Your task to perform on an android device: turn on the 12-hour format for clock Image 0: 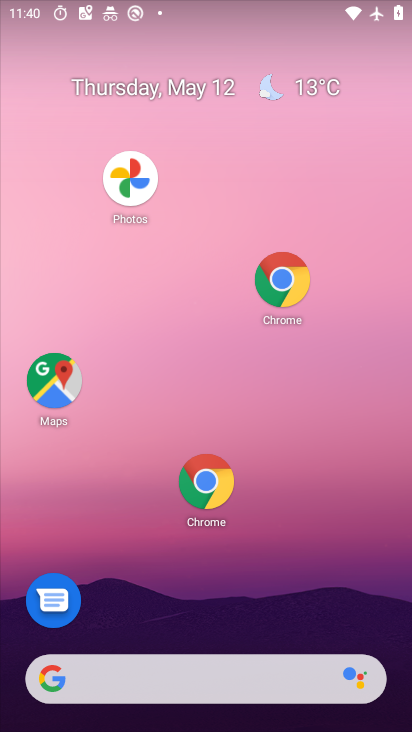
Step 0: drag from (267, 471) to (123, 82)
Your task to perform on an android device: turn on the 12-hour format for clock Image 1: 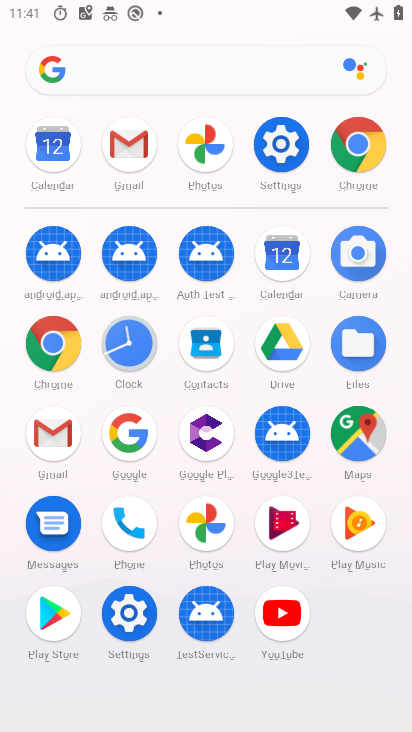
Step 1: click (129, 339)
Your task to perform on an android device: turn on the 12-hour format for clock Image 2: 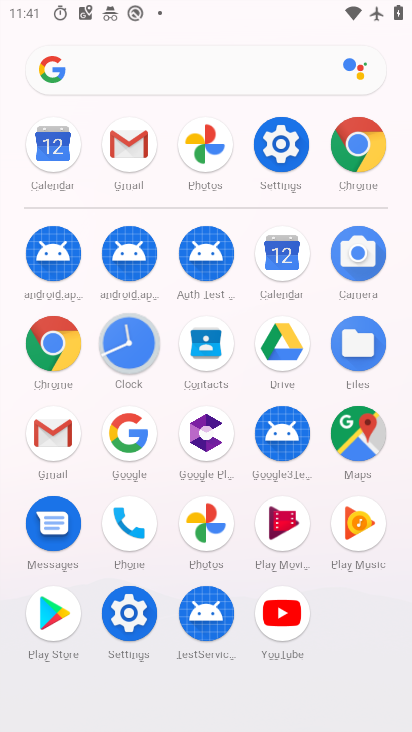
Step 2: click (127, 339)
Your task to perform on an android device: turn on the 12-hour format for clock Image 3: 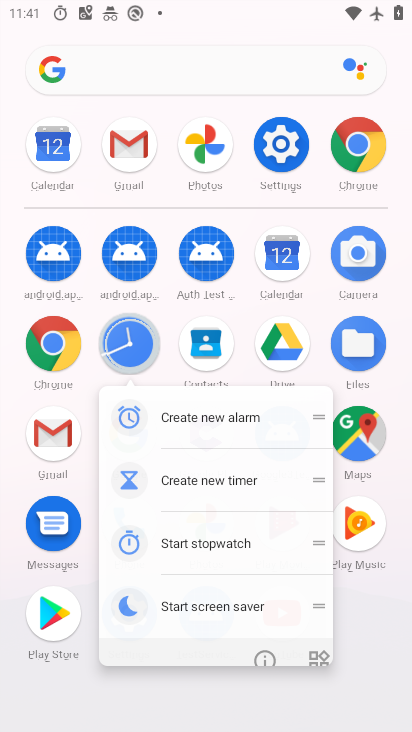
Step 3: click (127, 339)
Your task to perform on an android device: turn on the 12-hour format for clock Image 4: 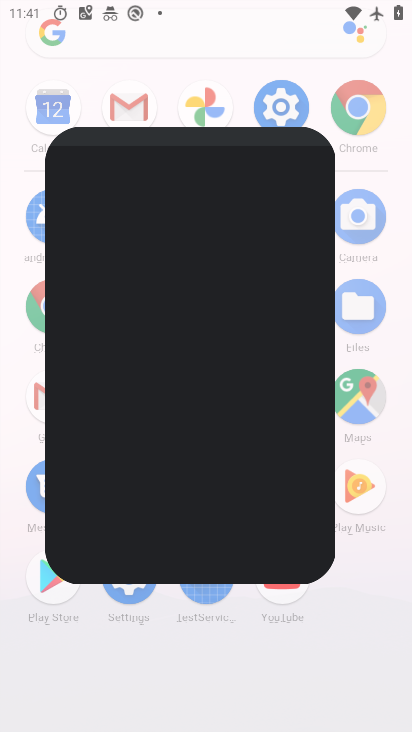
Step 4: click (122, 335)
Your task to perform on an android device: turn on the 12-hour format for clock Image 5: 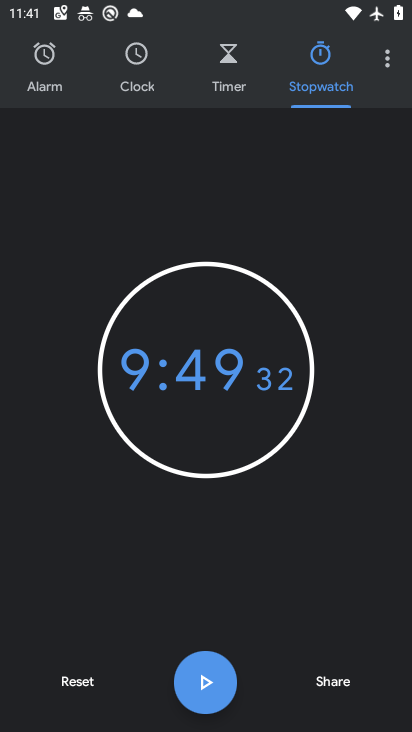
Step 5: click (389, 59)
Your task to perform on an android device: turn on the 12-hour format for clock Image 6: 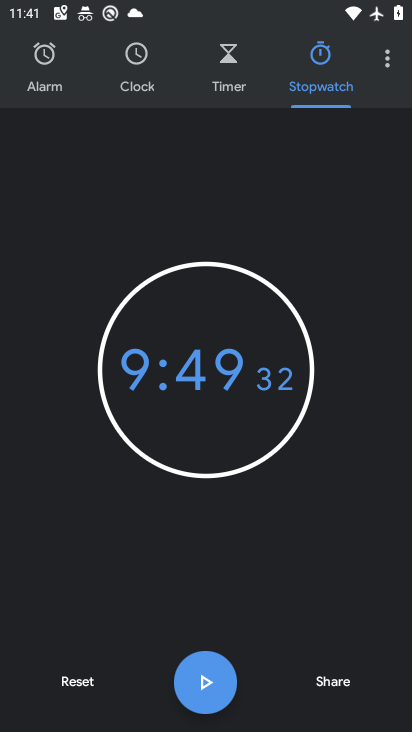
Step 6: click (390, 59)
Your task to perform on an android device: turn on the 12-hour format for clock Image 7: 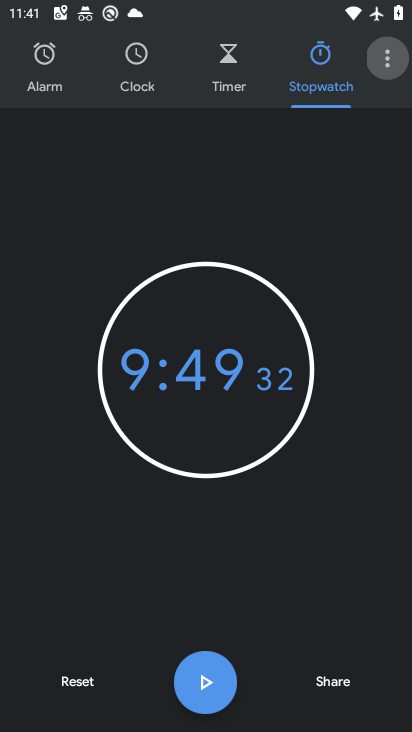
Step 7: click (390, 59)
Your task to perform on an android device: turn on the 12-hour format for clock Image 8: 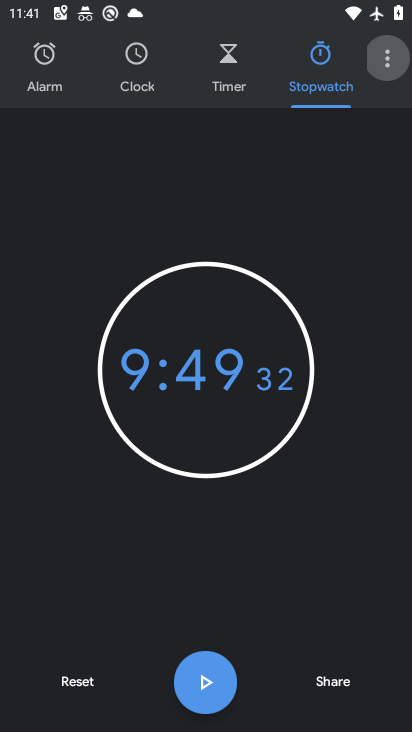
Step 8: click (391, 59)
Your task to perform on an android device: turn on the 12-hour format for clock Image 9: 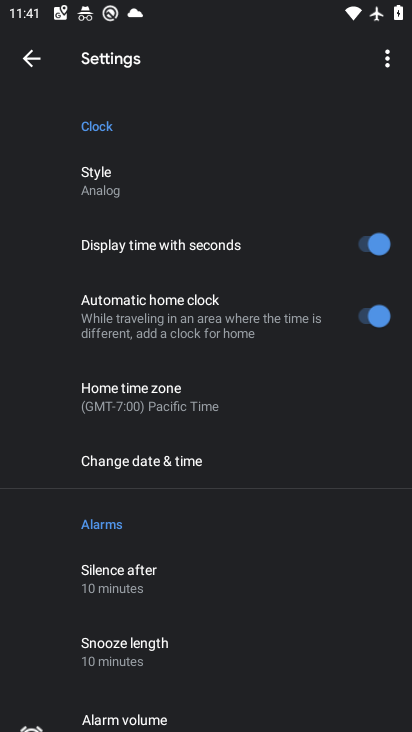
Step 9: click (202, 463)
Your task to perform on an android device: turn on the 12-hour format for clock Image 10: 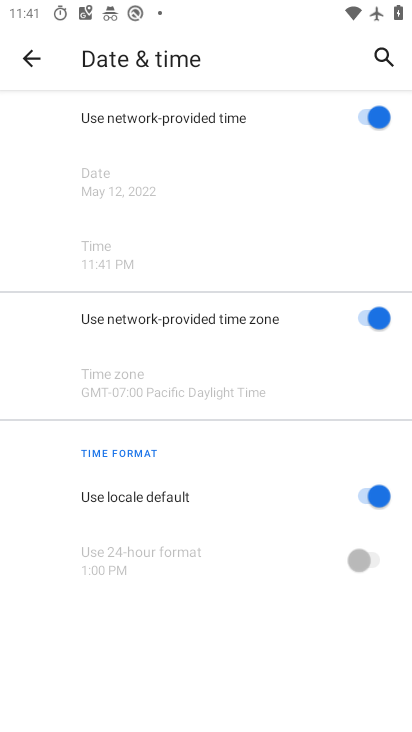
Step 10: task complete